Your task to perform on an android device: What's the weather going to be this weekend? Image 0: 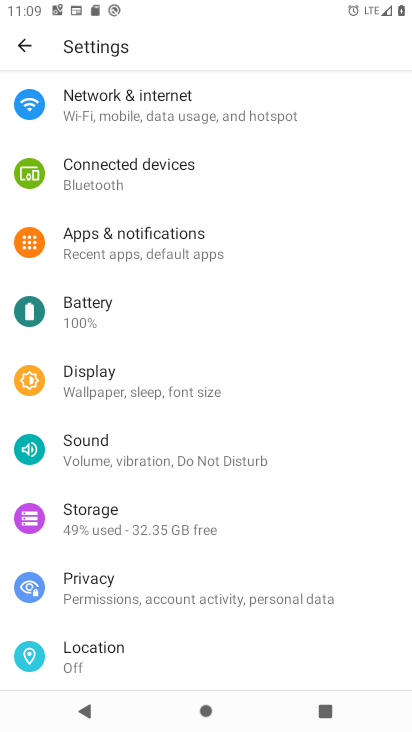
Step 0: press home button
Your task to perform on an android device: What's the weather going to be this weekend? Image 1: 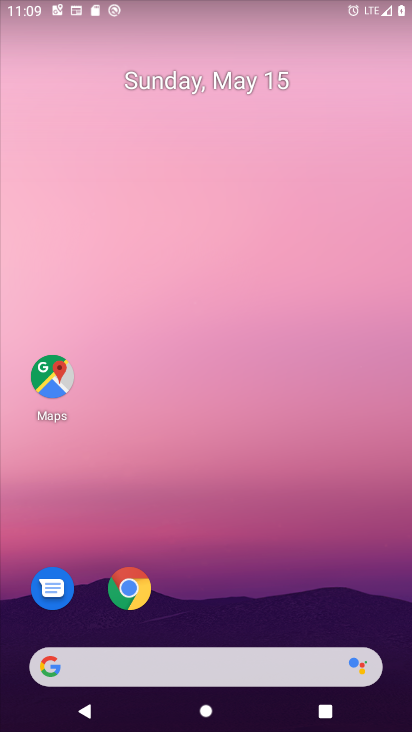
Step 1: click (42, 666)
Your task to perform on an android device: What's the weather going to be this weekend? Image 2: 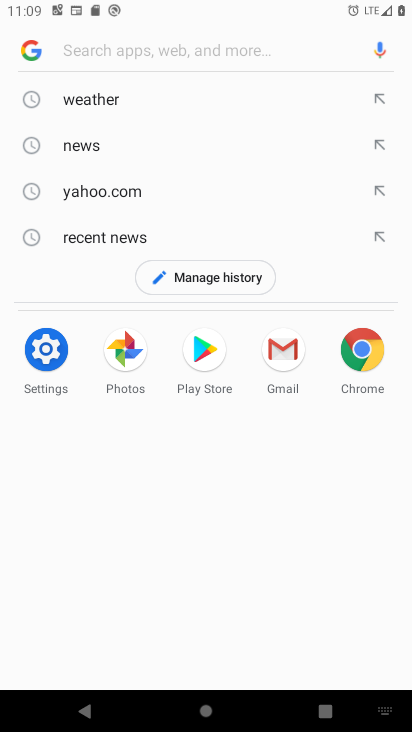
Step 2: click (115, 100)
Your task to perform on an android device: What's the weather going to be this weekend? Image 3: 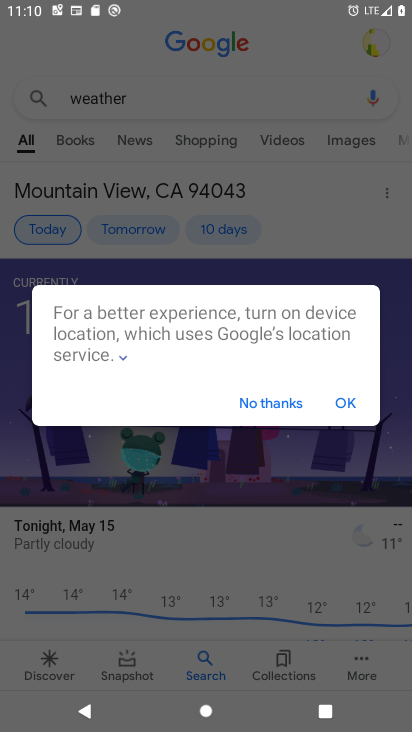
Step 3: click (342, 401)
Your task to perform on an android device: What's the weather going to be this weekend? Image 4: 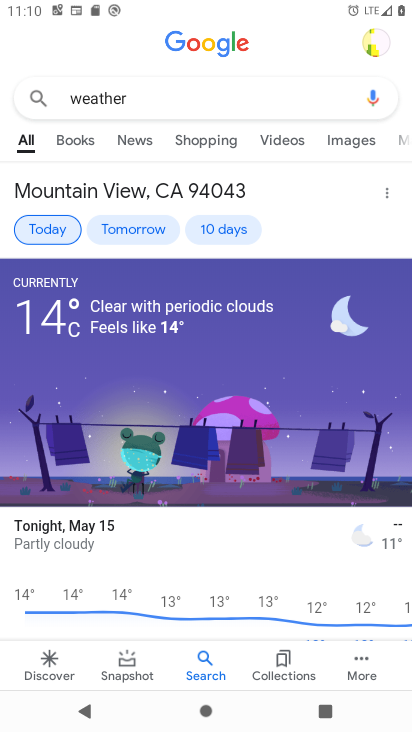
Step 4: click (205, 236)
Your task to perform on an android device: What's the weather going to be this weekend? Image 5: 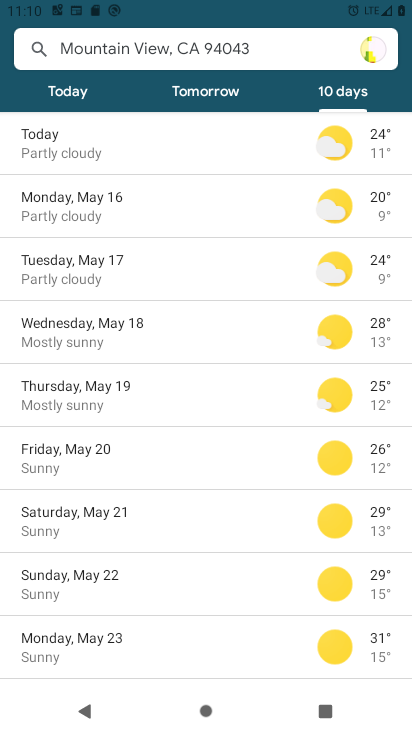
Step 5: task complete